Your task to perform on an android device: change notification settings in the gmail app Image 0: 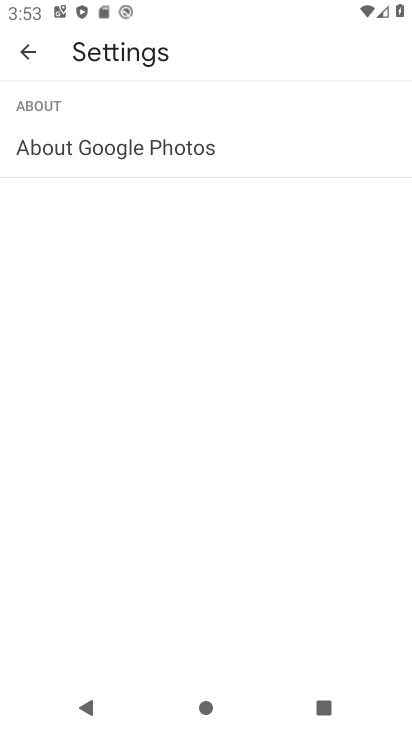
Step 0: press back button
Your task to perform on an android device: change notification settings in the gmail app Image 1: 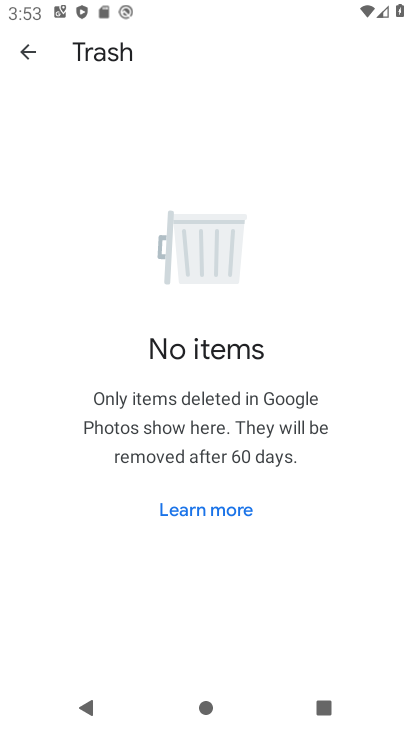
Step 1: press back button
Your task to perform on an android device: change notification settings in the gmail app Image 2: 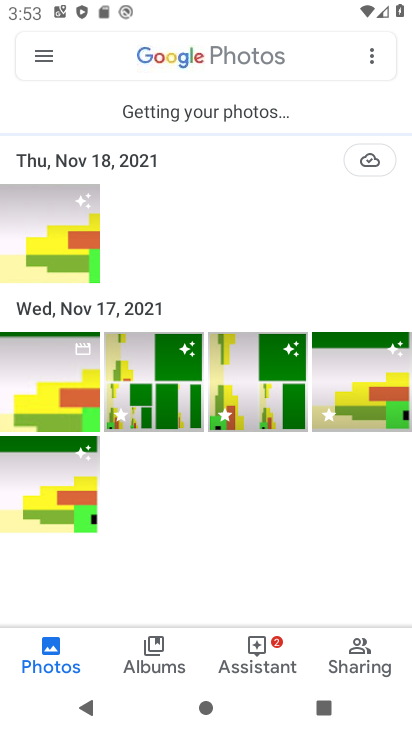
Step 2: press back button
Your task to perform on an android device: change notification settings in the gmail app Image 3: 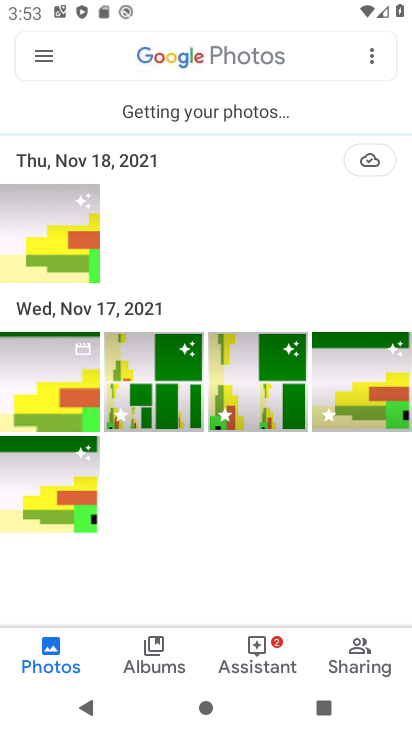
Step 3: press home button
Your task to perform on an android device: change notification settings in the gmail app Image 4: 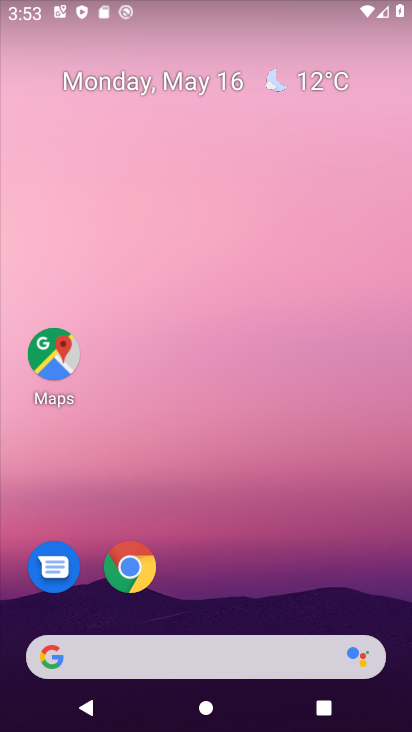
Step 4: drag from (218, 509) to (173, 11)
Your task to perform on an android device: change notification settings in the gmail app Image 5: 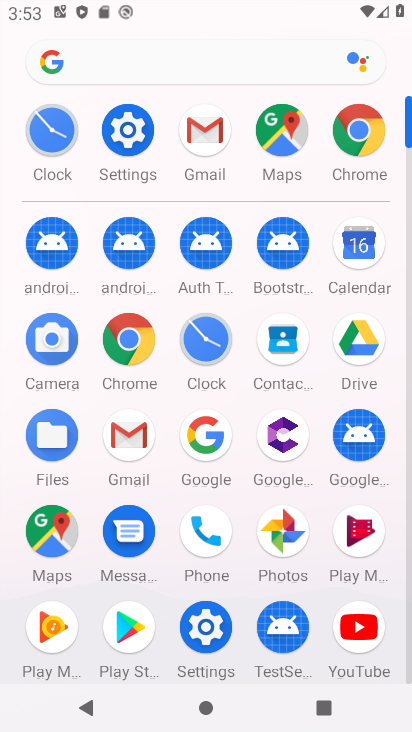
Step 5: click (128, 432)
Your task to perform on an android device: change notification settings in the gmail app Image 6: 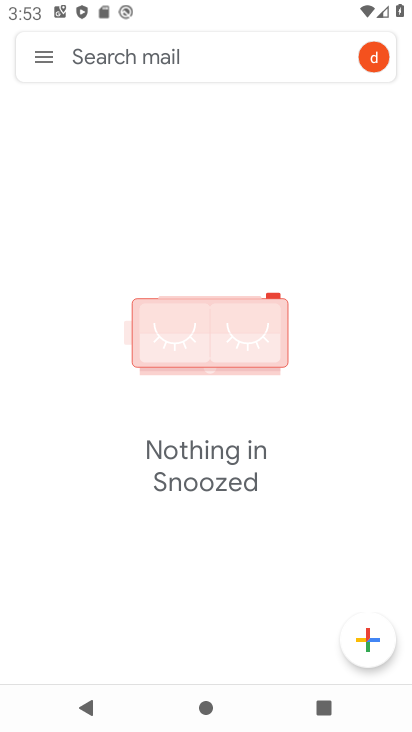
Step 6: click (47, 62)
Your task to perform on an android device: change notification settings in the gmail app Image 7: 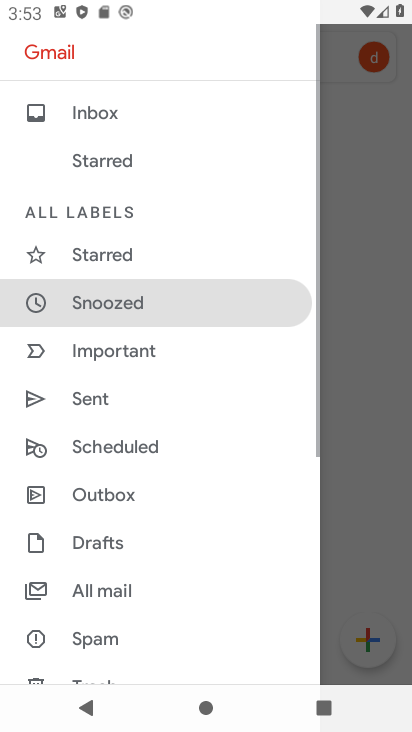
Step 7: drag from (189, 633) to (181, 144)
Your task to perform on an android device: change notification settings in the gmail app Image 8: 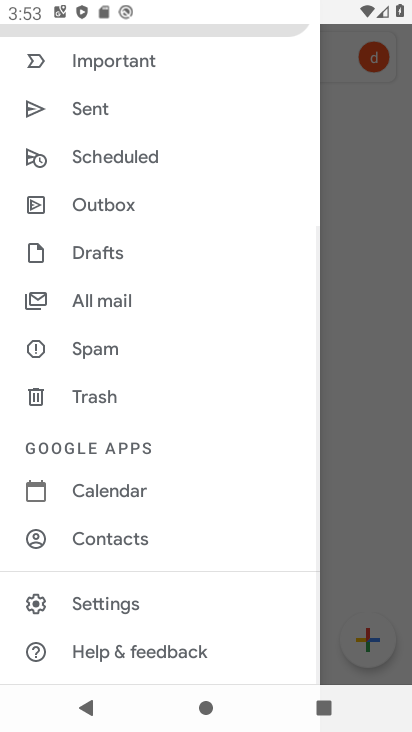
Step 8: click (124, 600)
Your task to perform on an android device: change notification settings in the gmail app Image 9: 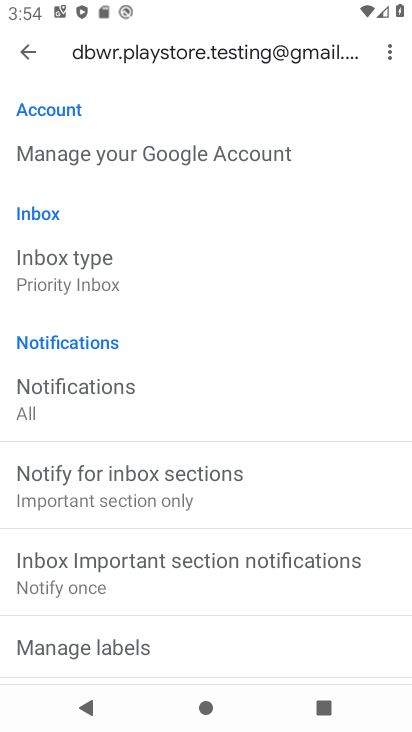
Step 9: drag from (168, 598) to (170, 238)
Your task to perform on an android device: change notification settings in the gmail app Image 10: 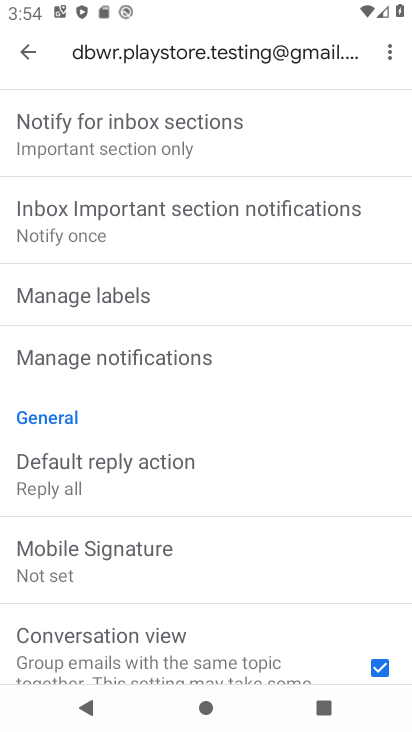
Step 10: click (179, 354)
Your task to perform on an android device: change notification settings in the gmail app Image 11: 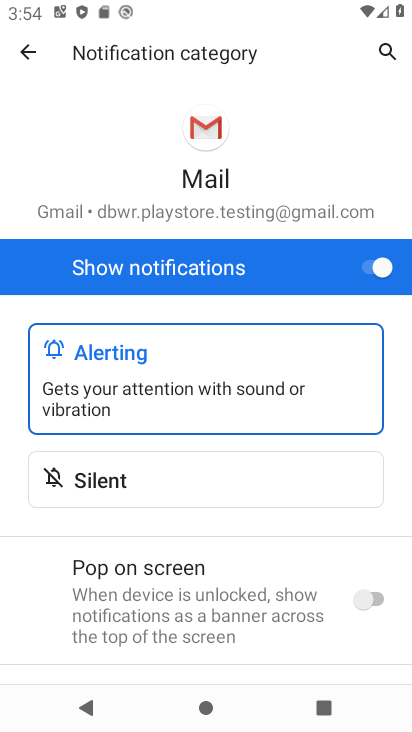
Step 11: click (361, 264)
Your task to perform on an android device: change notification settings in the gmail app Image 12: 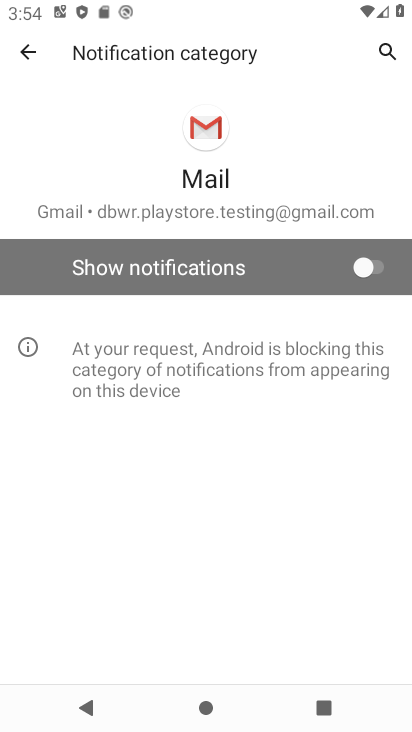
Step 12: task complete